Your task to perform on an android device: add a contact Image 0: 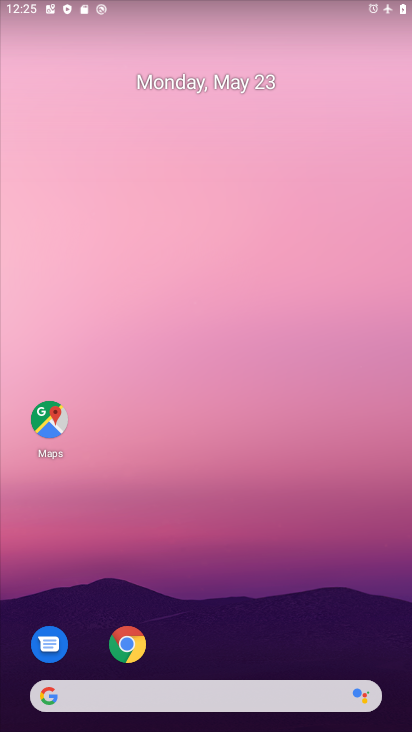
Step 0: drag from (333, 628) to (264, 32)
Your task to perform on an android device: add a contact Image 1: 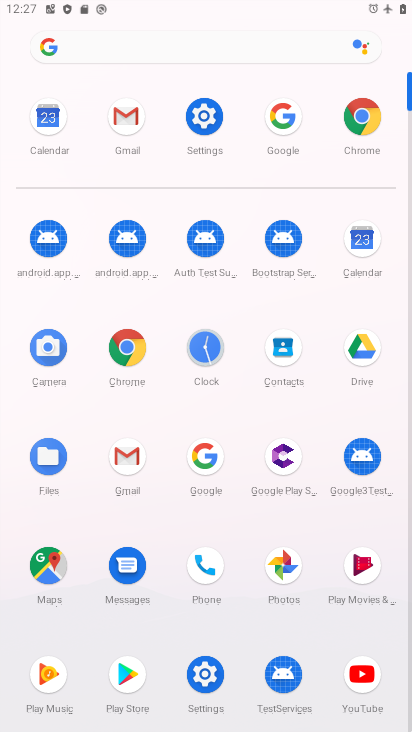
Step 1: click (286, 355)
Your task to perform on an android device: add a contact Image 2: 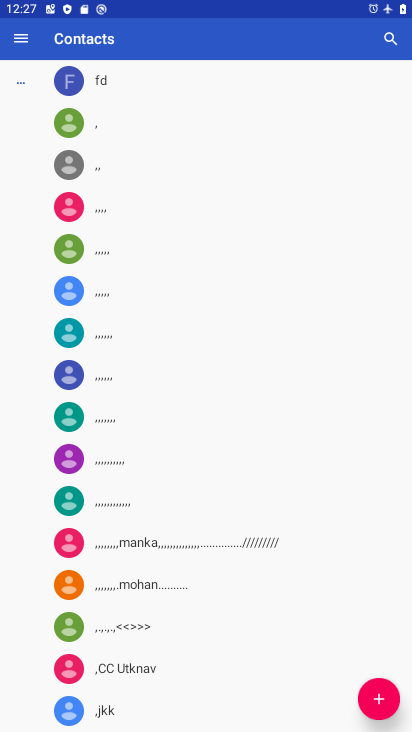
Step 2: click (394, 700)
Your task to perform on an android device: add a contact Image 3: 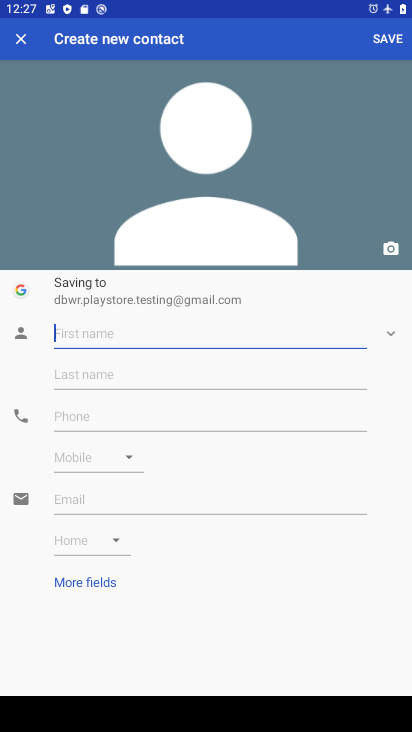
Step 3: type "neetu"
Your task to perform on an android device: add a contact Image 4: 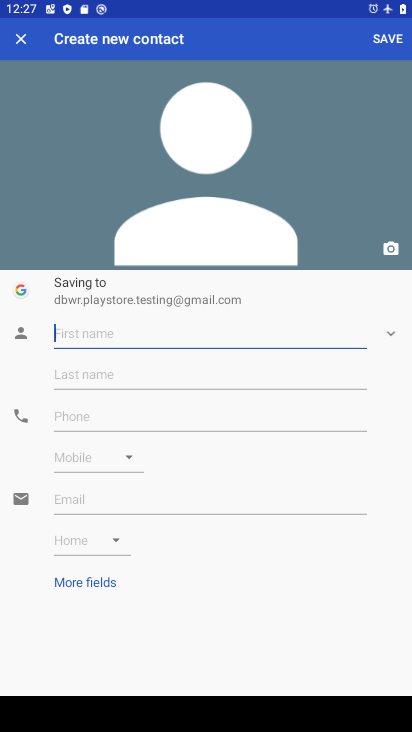
Step 4: click (404, 39)
Your task to perform on an android device: add a contact Image 5: 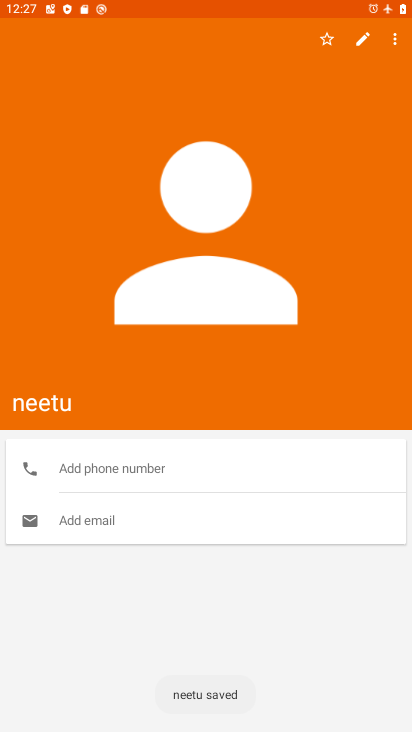
Step 5: task complete